Your task to perform on an android device: Go to wifi settings Image 0: 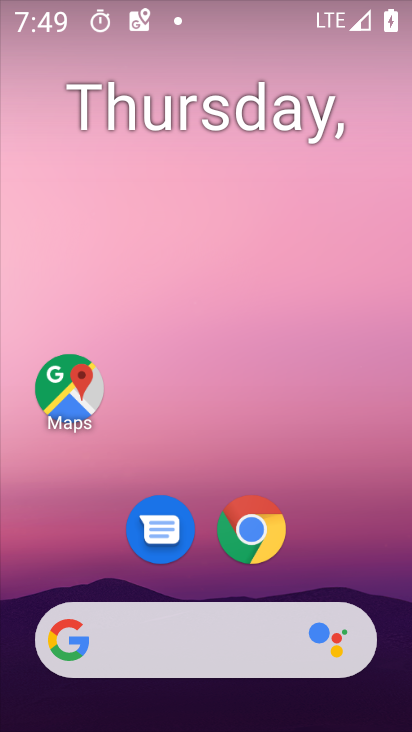
Step 0: drag from (382, 594) to (383, 278)
Your task to perform on an android device: Go to wifi settings Image 1: 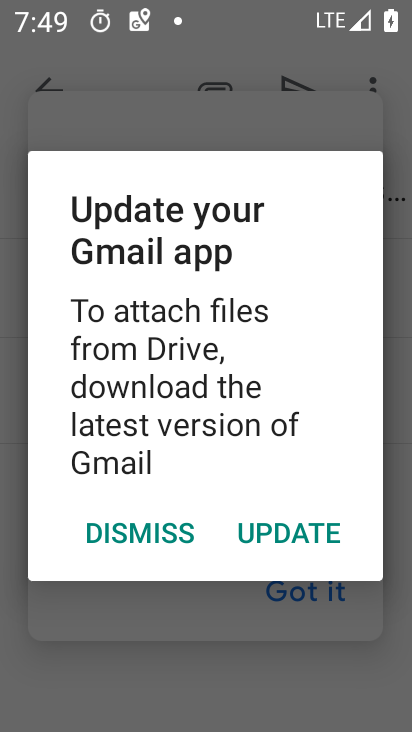
Step 1: press home button
Your task to perform on an android device: Go to wifi settings Image 2: 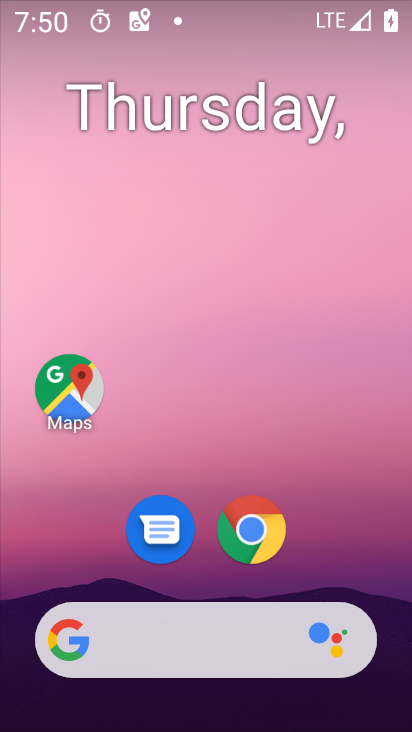
Step 2: drag from (386, 572) to (381, 159)
Your task to perform on an android device: Go to wifi settings Image 3: 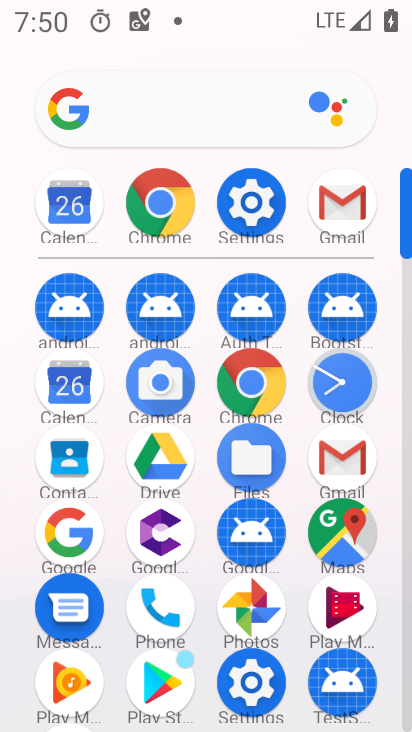
Step 3: click (258, 222)
Your task to perform on an android device: Go to wifi settings Image 4: 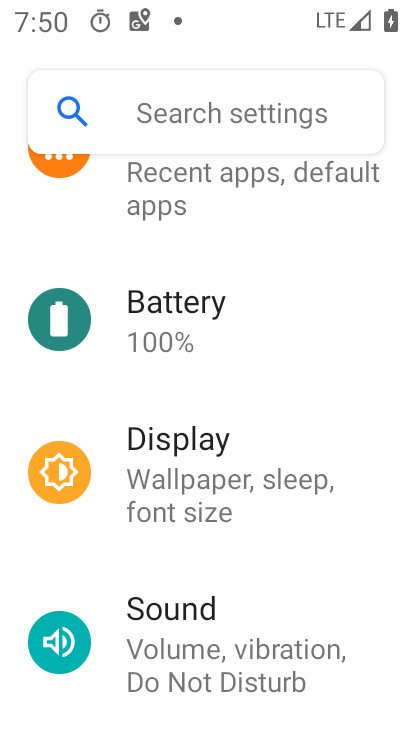
Step 4: drag from (326, 253) to (326, 384)
Your task to perform on an android device: Go to wifi settings Image 5: 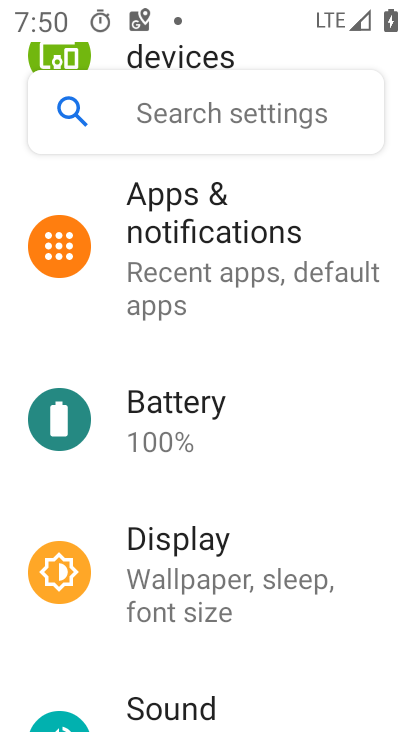
Step 5: drag from (336, 215) to (336, 338)
Your task to perform on an android device: Go to wifi settings Image 6: 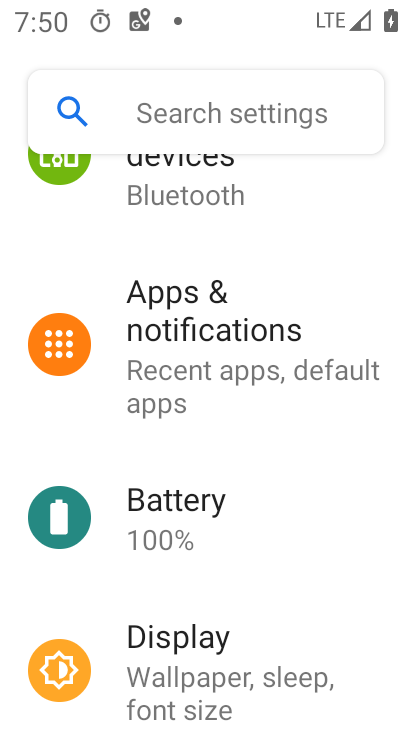
Step 6: drag from (332, 207) to (332, 309)
Your task to perform on an android device: Go to wifi settings Image 7: 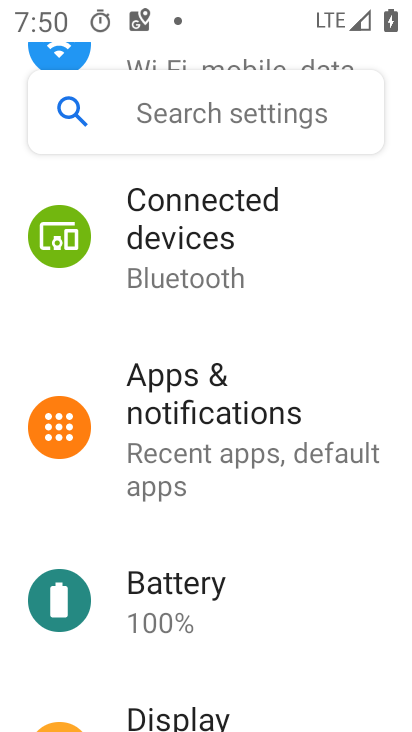
Step 7: drag from (331, 180) to (332, 294)
Your task to perform on an android device: Go to wifi settings Image 8: 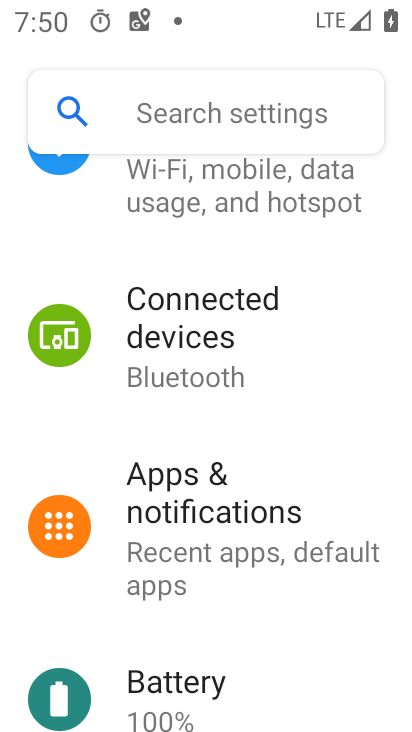
Step 8: drag from (374, 186) to (374, 290)
Your task to perform on an android device: Go to wifi settings Image 9: 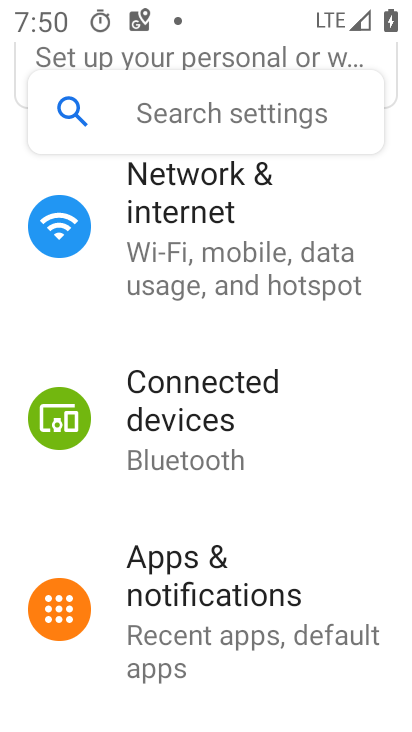
Step 9: drag from (364, 209) to (364, 308)
Your task to perform on an android device: Go to wifi settings Image 10: 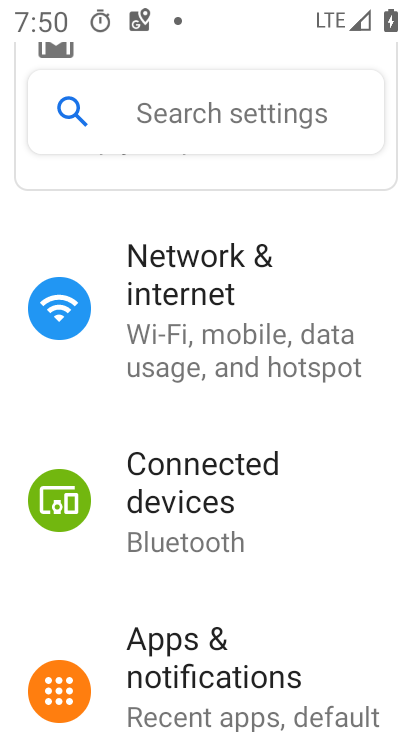
Step 10: click (306, 312)
Your task to perform on an android device: Go to wifi settings Image 11: 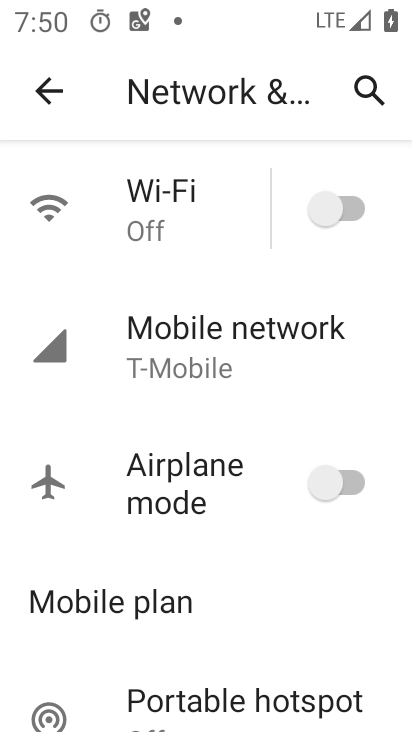
Step 11: click (201, 218)
Your task to perform on an android device: Go to wifi settings Image 12: 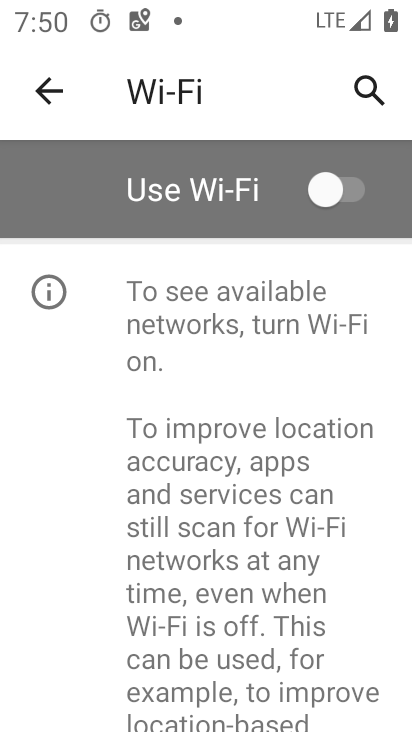
Step 12: task complete